Your task to perform on an android device: Open Android settings Image 0: 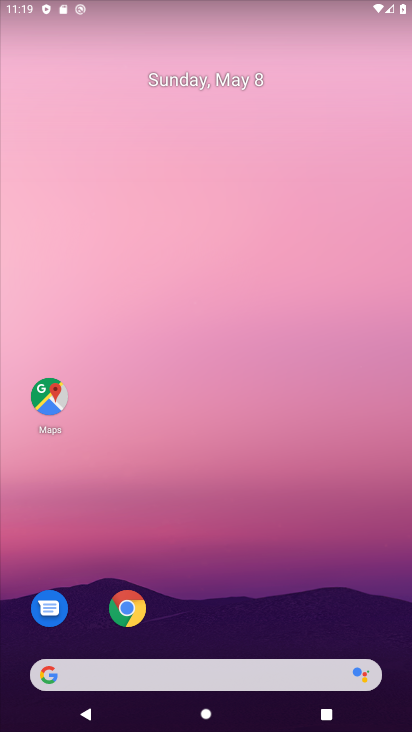
Step 0: drag from (161, 647) to (203, 480)
Your task to perform on an android device: Open Android settings Image 1: 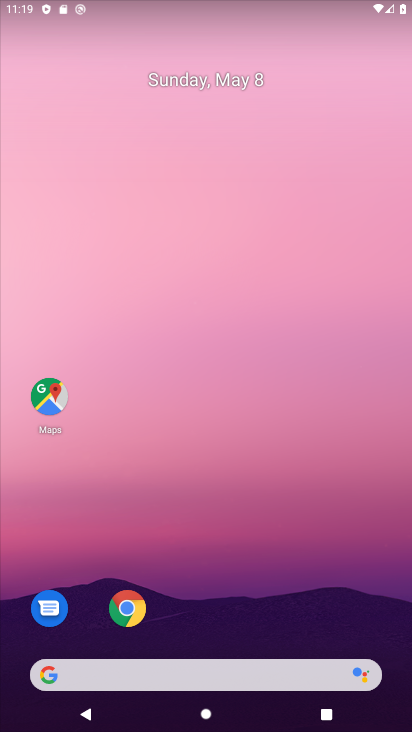
Step 1: drag from (203, 648) to (282, 407)
Your task to perform on an android device: Open Android settings Image 2: 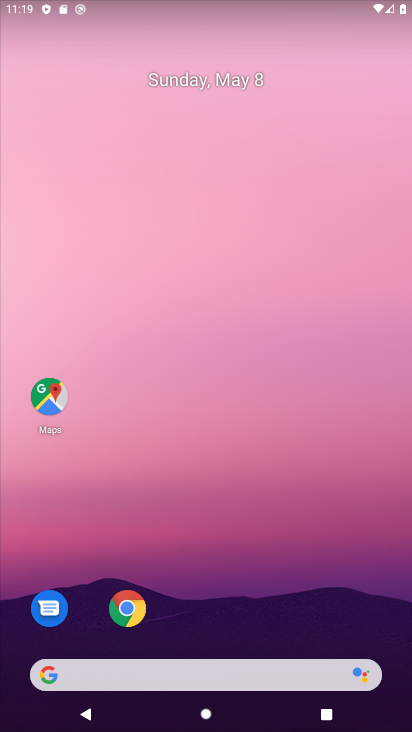
Step 2: drag from (210, 652) to (240, 471)
Your task to perform on an android device: Open Android settings Image 3: 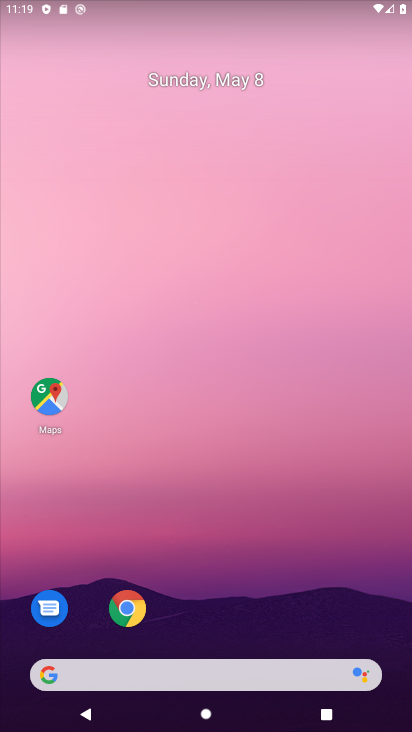
Step 3: drag from (220, 660) to (275, 373)
Your task to perform on an android device: Open Android settings Image 4: 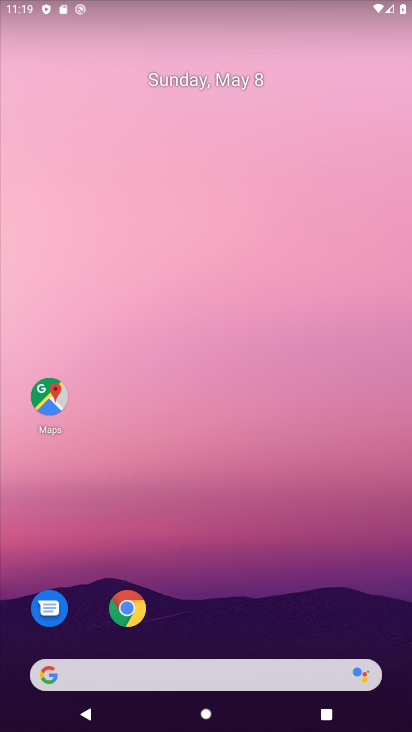
Step 4: drag from (193, 652) to (254, 349)
Your task to perform on an android device: Open Android settings Image 5: 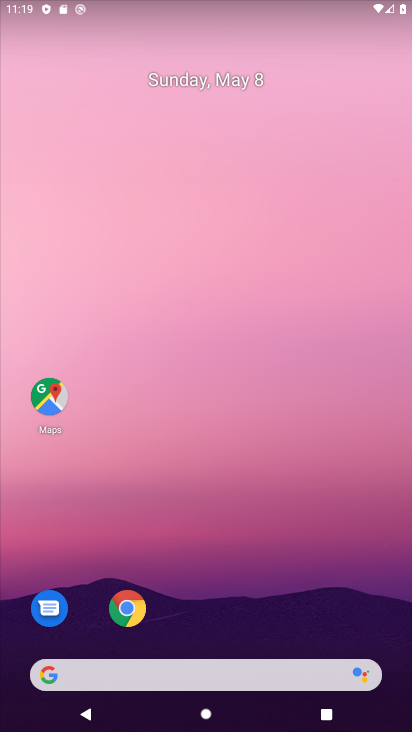
Step 5: drag from (246, 537) to (326, 142)
Your task to perform on an android device: Open Android settings Image 6: 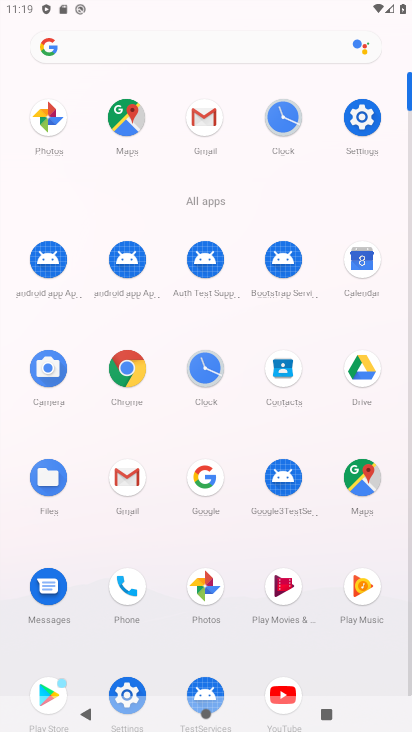
Step 6: click (129, 681)
Your task to perform on an android device: Open Android settings Image 7: 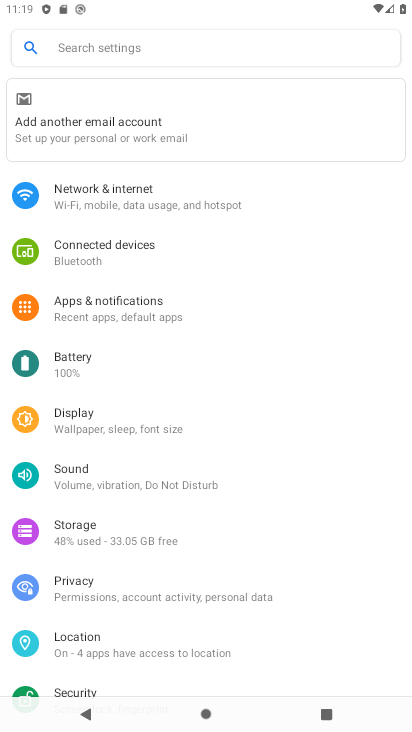
Step 7: task complete